Your task to perform on an android device: open a bookmark in the chrome app Image 0: 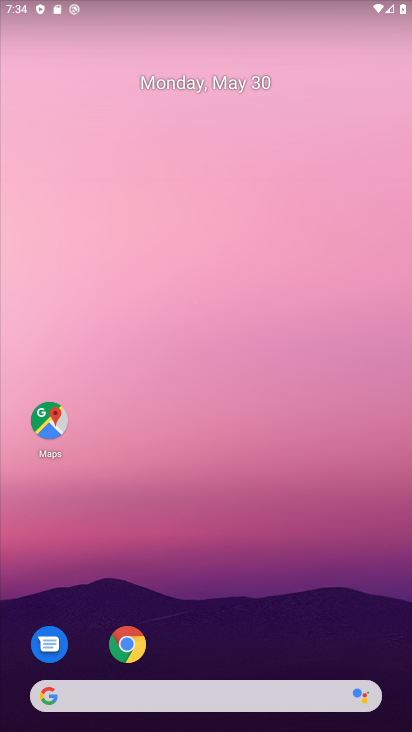
Step 0: click (128, 645)
Your task to perform on an android device: open a bookmark in the chrome app Image 1: 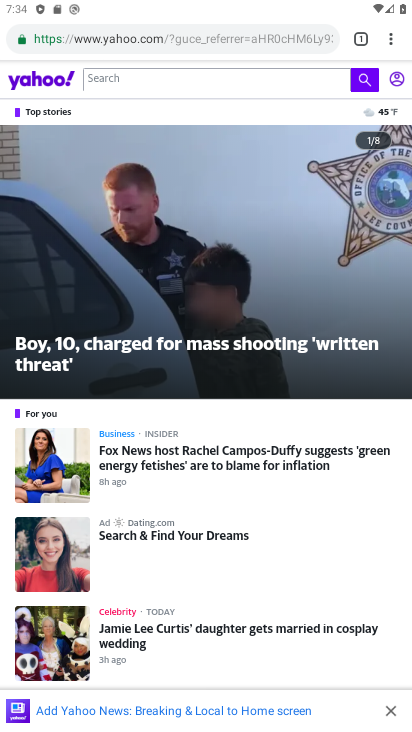
Step 1: click (391, 38)
Your task to perform on an android device: open a bookmark in the chrome app Image 2: 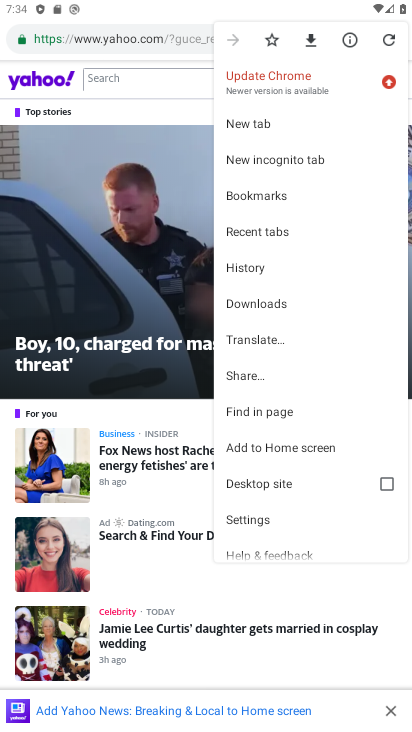
Step 2: click (268, 195)
Your task to perform on an android device: open a bookmark in the chrome app Image 3: 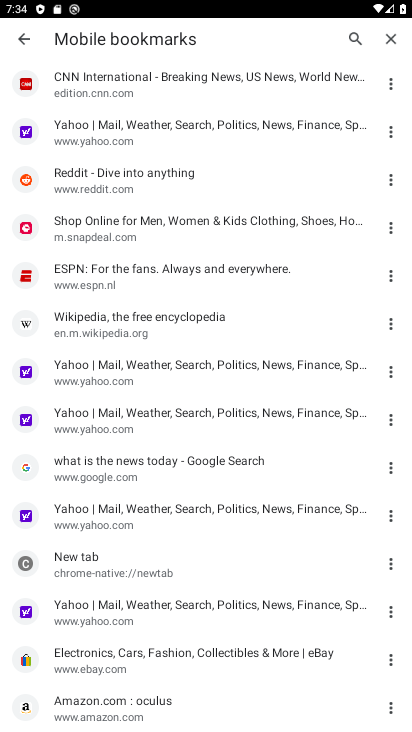
Step 3: task complete